Your task to perform on an android device: turn on sleep mode Image 0: 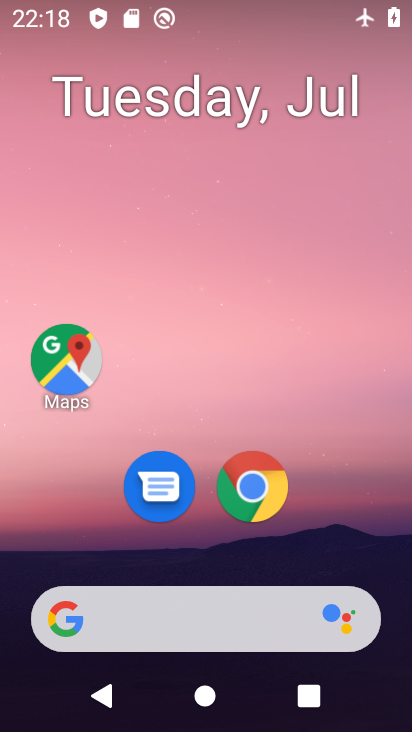
Step 0: press home button
Your task to perform on an android device: turn on sleep mode Image 1: 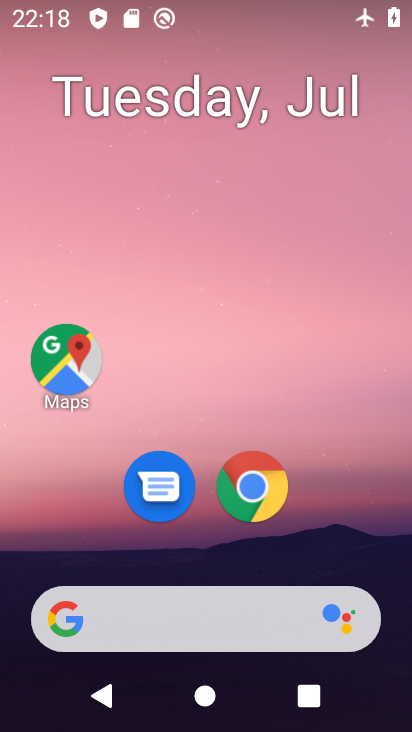
Step 1: drag from (363, 537) to (366, 176)
Your task to perform on an android device: turn on sleep mode Image 2: 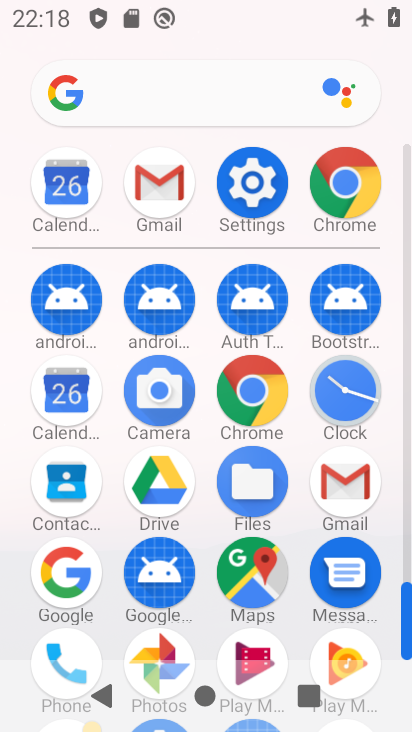
Step 2: click (258, 200)
Your task to perform on an android device: turn on sleep mode Image 3: 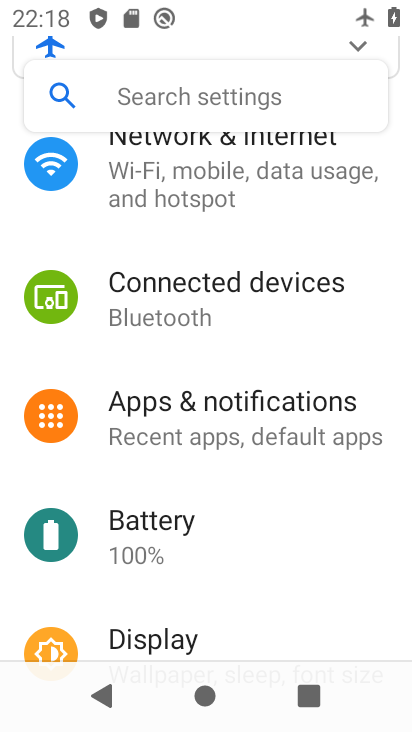
Step 3: drag from (310, 490) to (306, 395)
Your task to perform on an android device: turn on sleep mode Image 4: 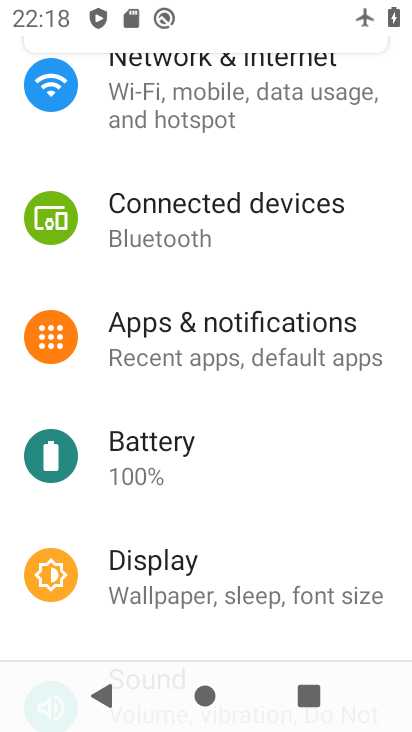
Step 4: drag from (336, 487) to (337, 384)
Your task to perform on an android device: turn on sleep mode Image 5: 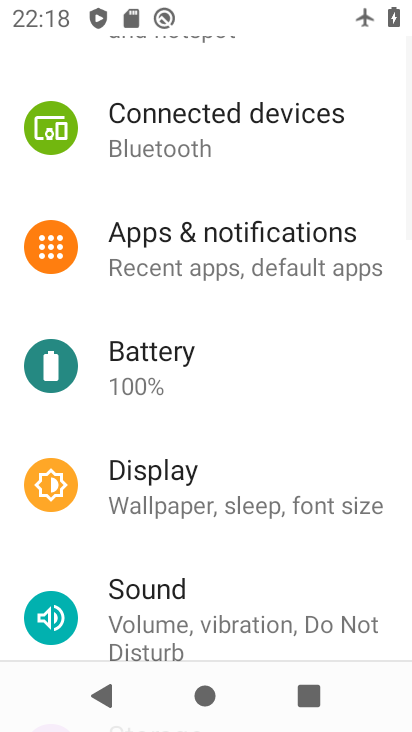
Step 5: drag from (338, 513) to (339, 385)
Your task to perform on an android device: turn on sleep mode Image 6: 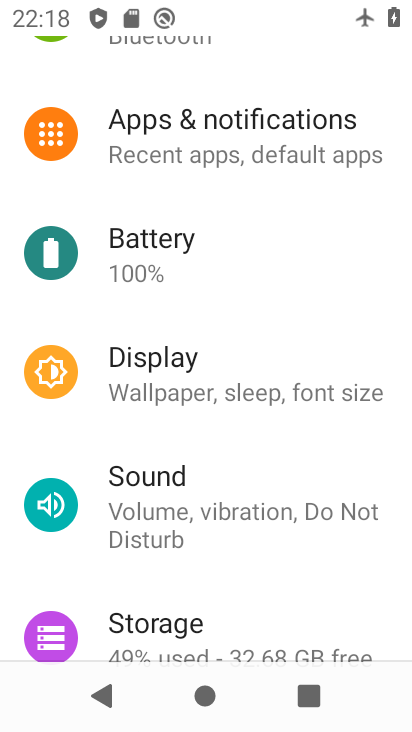
Step 6: drag from (330, 533) to (329, 427)
Your task to perform on an android device: turn on sleep mode Image 7: 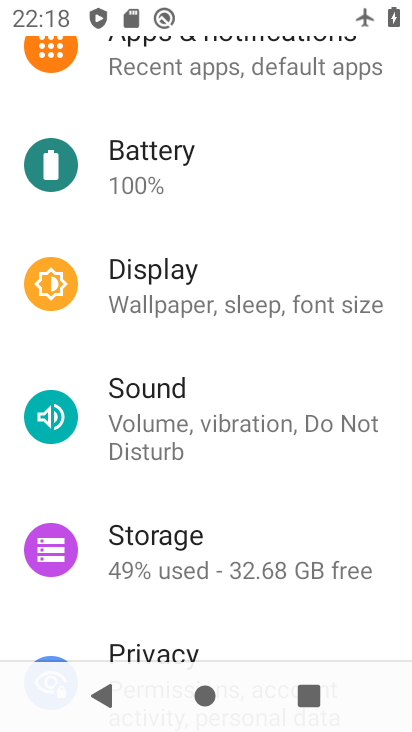
Step 7: click (303, 305)
Your task to perform on an android device: turn on sleep mode Image 8: 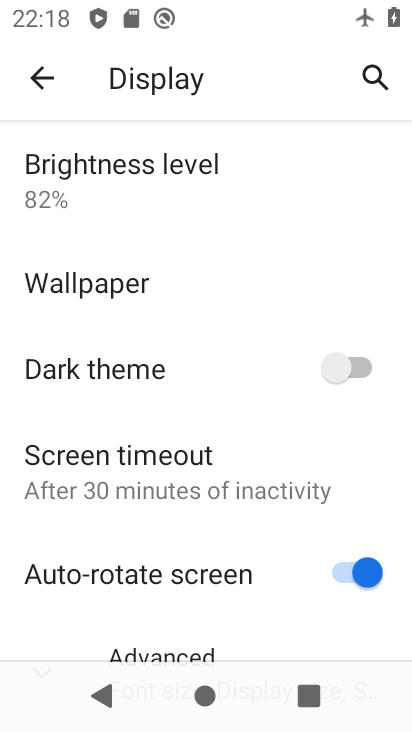
Step 8: drag from (264, 564) to (271, 460)
Your task to perform on an android device: turn on sleep mode Image 9: 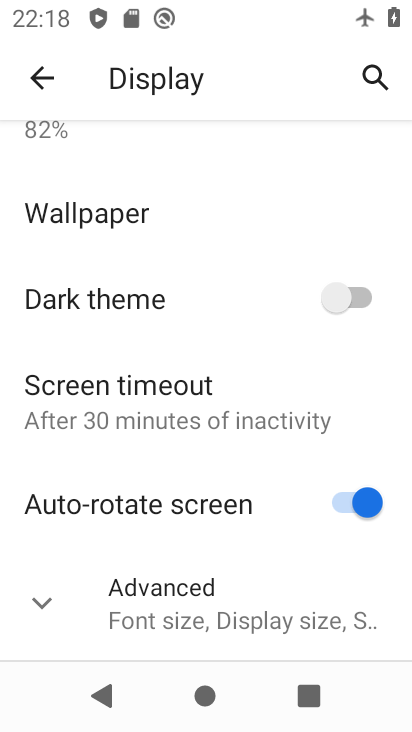
Step 9: click (261, 592)
Your task to perform on an android device: turn on sleep mode Image 10: 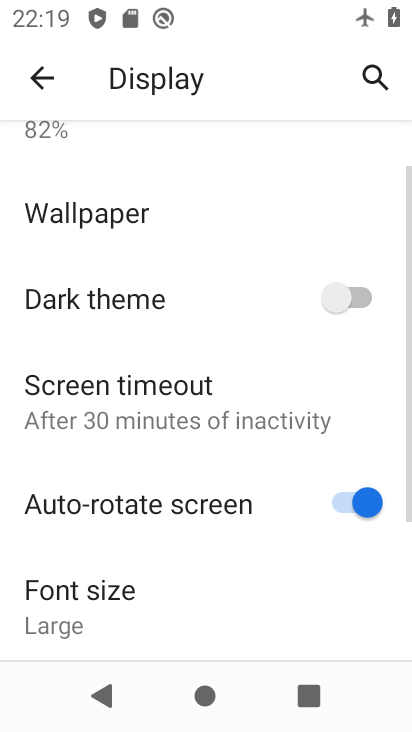
Step 10: task complete